Your task to perform on an android device: clear all cookies in the chrome app Image 0: 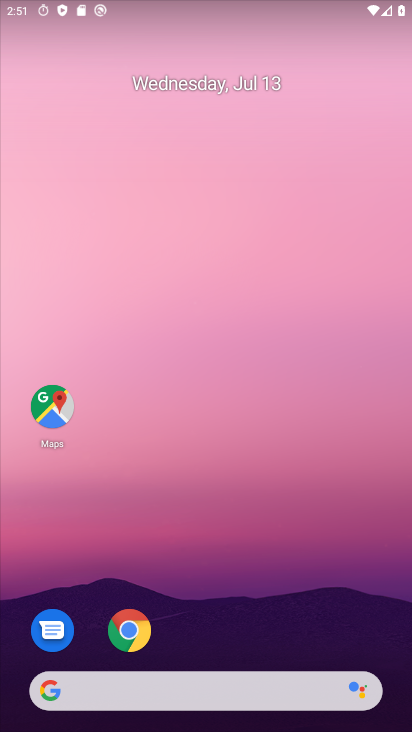
Step 0: click (276, 129)
Your task to perform on an android device: clear all cookies in the chrome app Image 1: 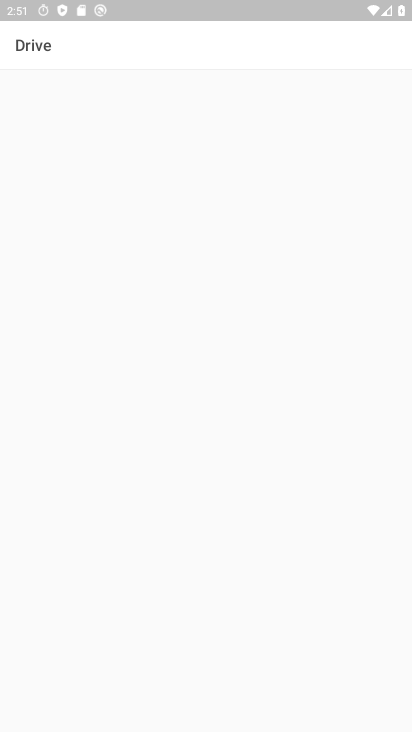
Step 1: press home button
Your task to perform on an android device: clear all cookies in the chrome app Image 2: 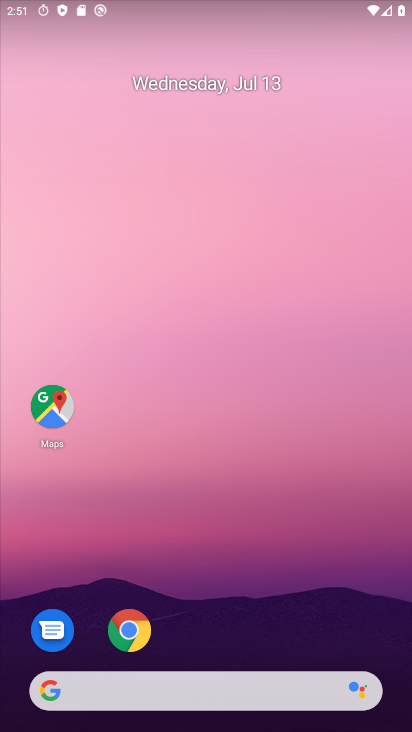
Step 2: click (113, 624)
Your task to perform on an android device: clear all cookies in the chrome app Image 3: 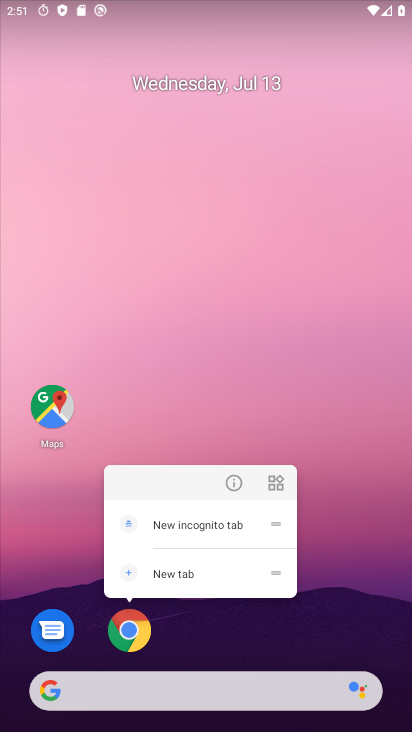
Step 3: click (114, 625)
Your task to perform on an android device: clear all cookies in the chrome app Image 4: 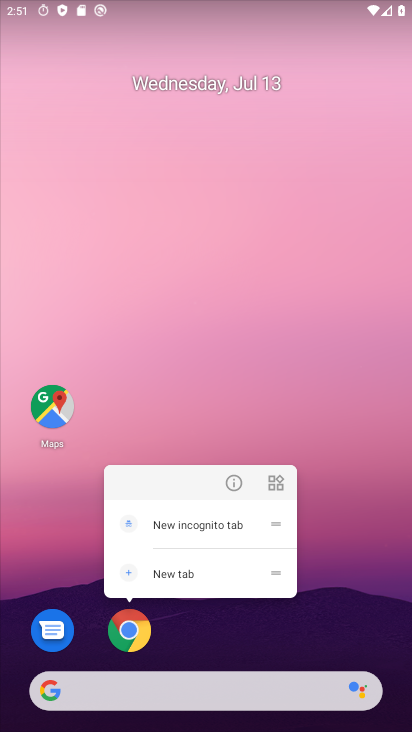
Step 4: click (133, 629)
Your task to perform on an android device: clear all cookies in the chrome app Image 5: 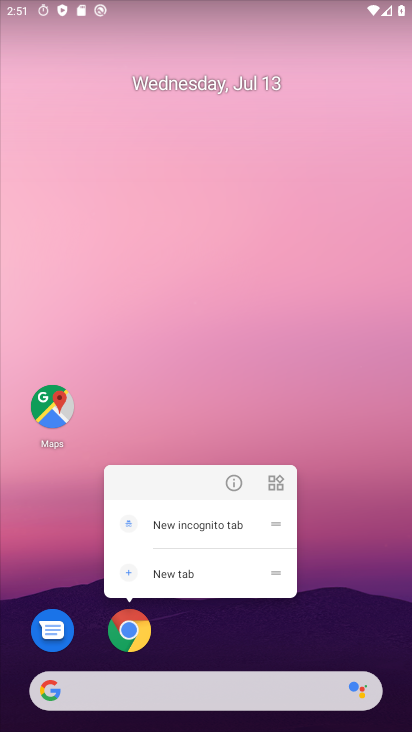
Step 5: task complete